Your task to perform on an android device: What's on my calendar tomorrow? Image 0: 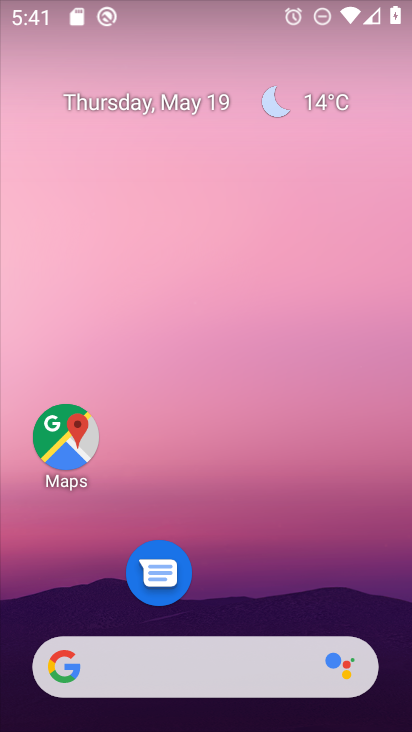
Step 0: drag from (251, 600) to (286, 3)
Your task to perform on an android device: What's on my calendar tomorrow? Image 1: 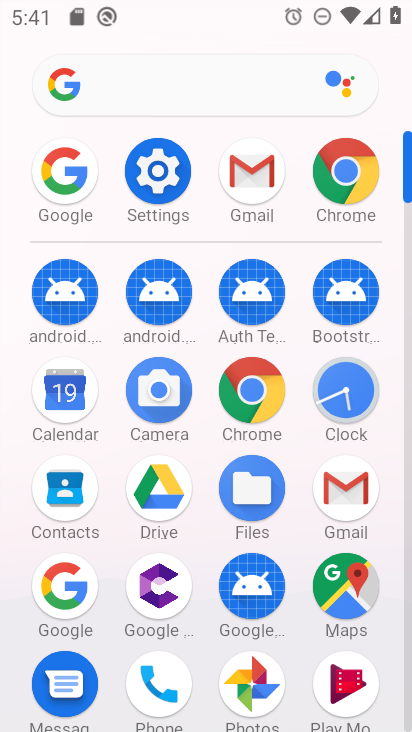
Step 1: click (71, 392)
Your task to perform on an android device: What's on my calendar tomorrow? Image 2: 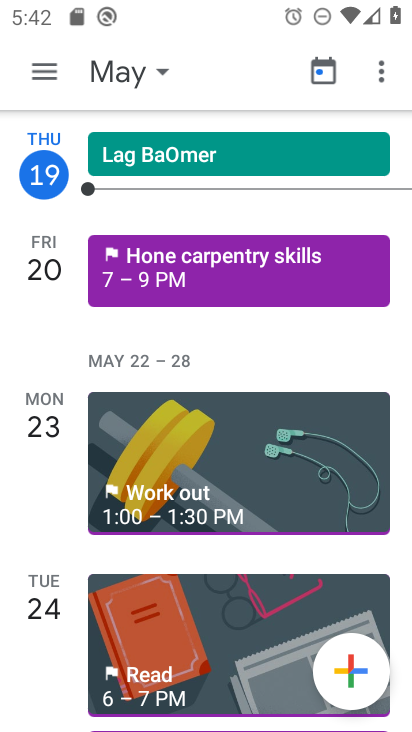
Step 2: task complete